Your task to perform on an android device: Open calendar and show me the first week of next month Image 0: 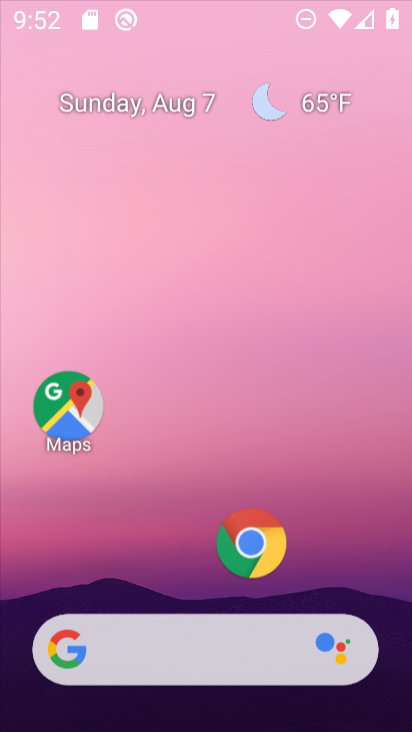
Step 0: click (182, 87)
Your task to perform on an android device: Open calendar and show me the first week of next month Image 1: 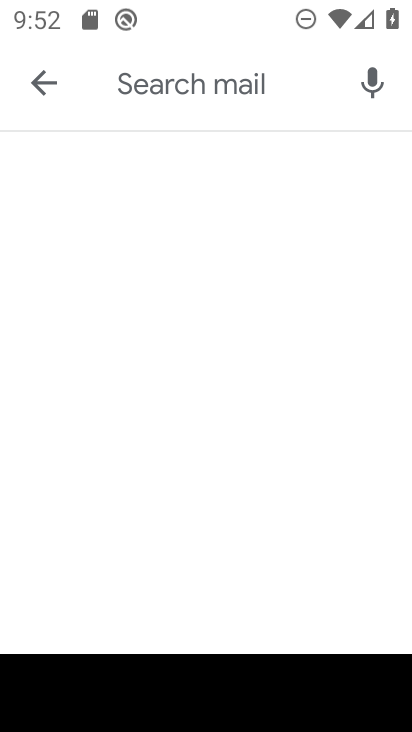
Step 1: press home button
Your task to perform on an android device: Open calendar and show me the first week of next month Image 2: 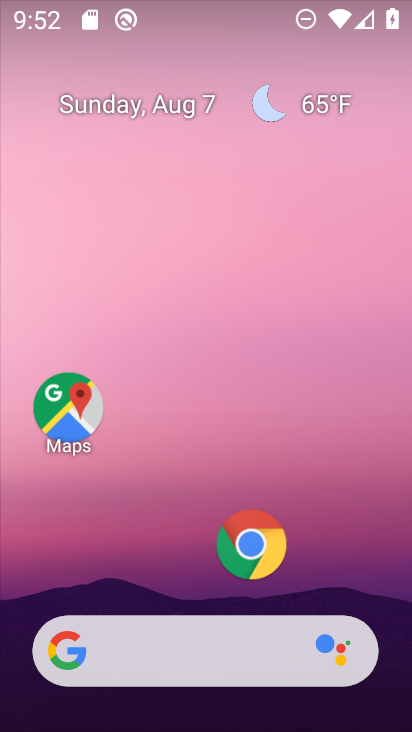
Step 2: drag from (167, 483) to (144, 57)
Your task to perform on an android device: Open calendar and show me the first week of next month Image 3: 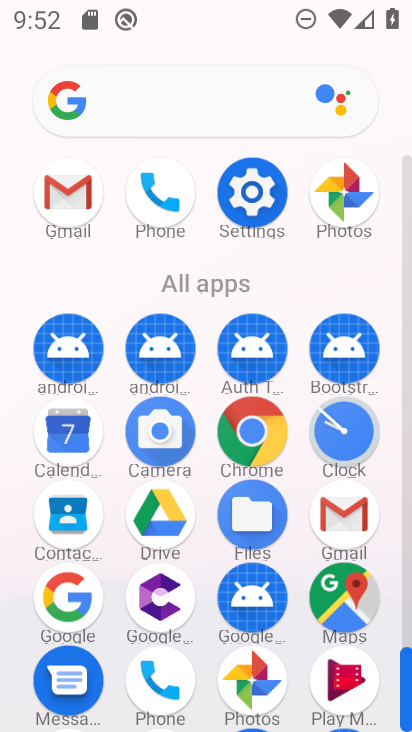
Step 3: click (61, 452)
Your task to perform on an android device: Open calendar and show me the first week of next month Image 4: 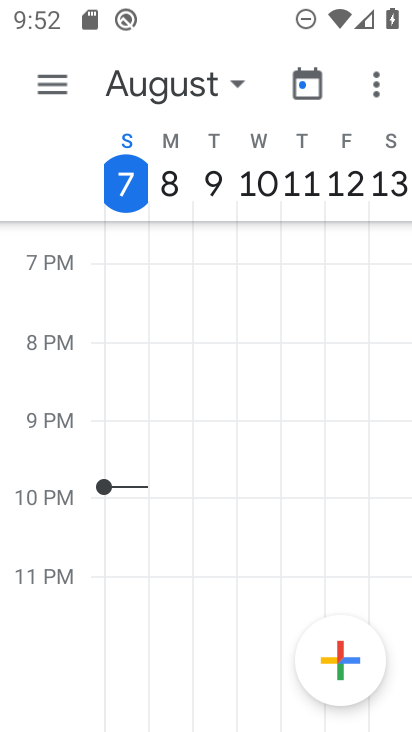
Step 4: task complete